Your task to perform on an android device: open app "Duolingo: language lessons" (install if not already installed) and go to login screen Image 0: 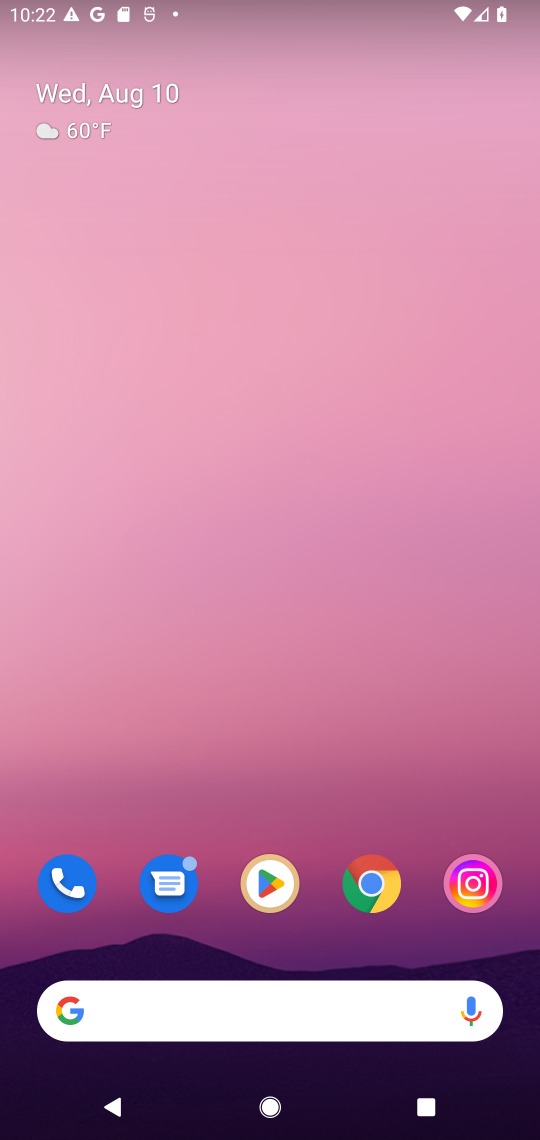
Step 0: press home button
Your task to perform on an android device: open app "Duolingo: language lessons" (install if not already installed) and go to login screen Image 1: 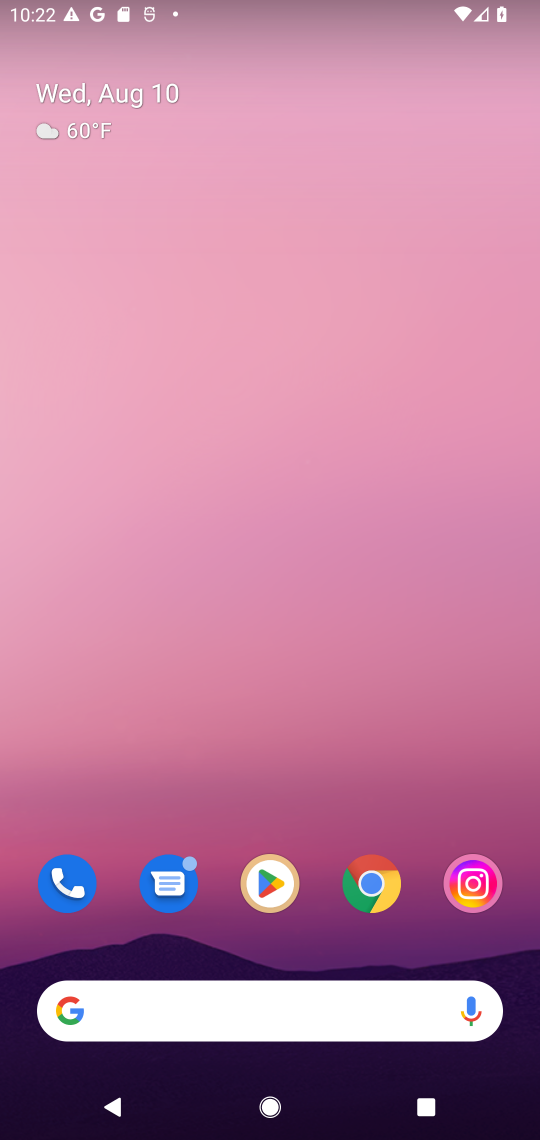
Step 1: drag from (426, 808) to (436, 89)
Your task to perform on an android device: open app "Duolingo: language lessons" (install if not already installed) and go to login screen Image 2: 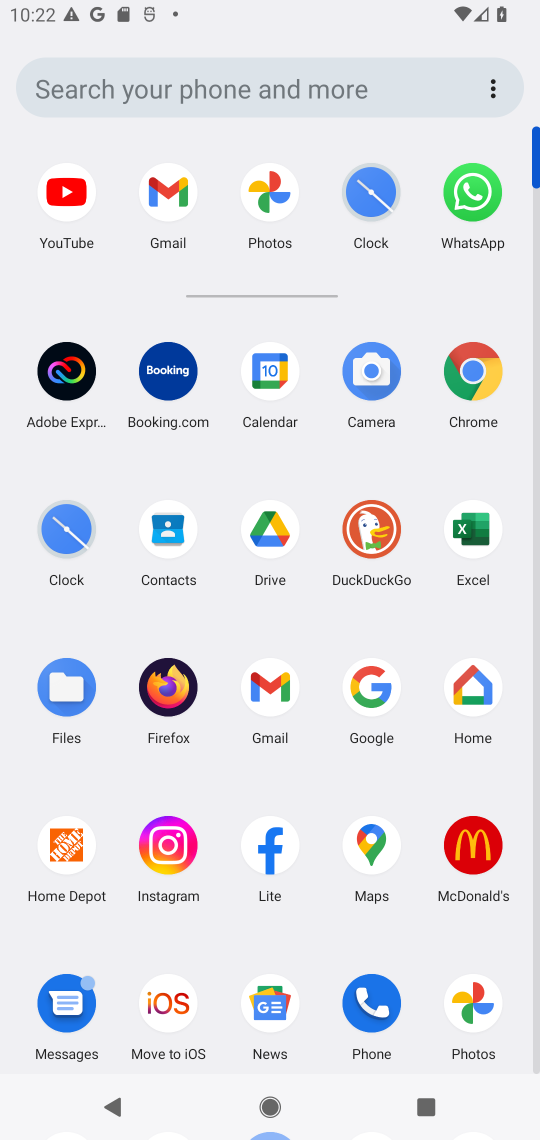
Step 2: drag from (505, 875) to (516, 288)
Your task to perform on an android device: open app "Duolingo: language lessons" (install if not already installed) and go to login screen Image 3: 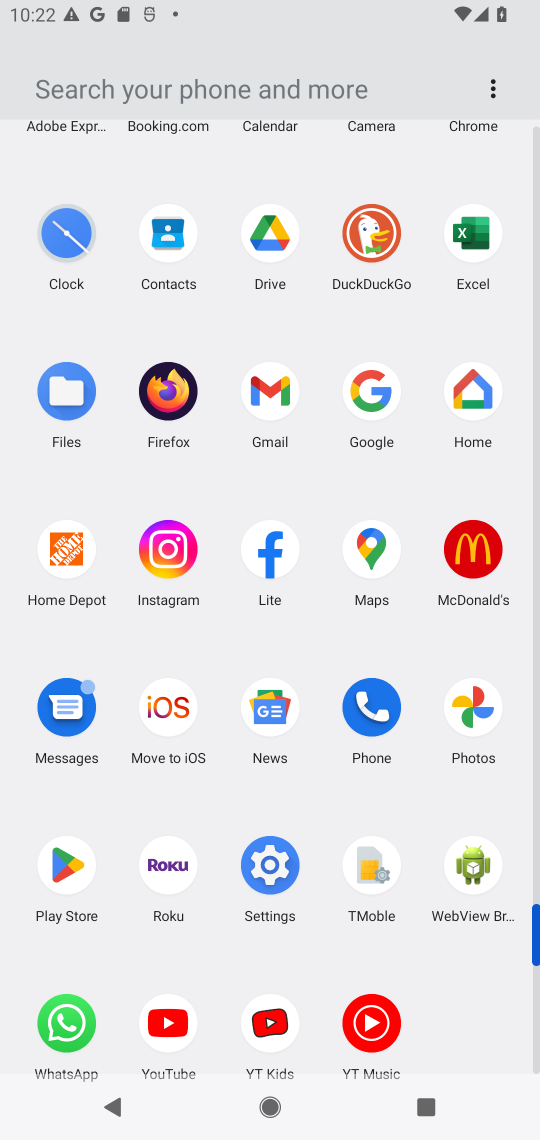
Step 3: click (70, 859)
Your task to perform on an android device: open app "Duolingo: language lessons" (install if not already installed) and go to login screen Image 4: 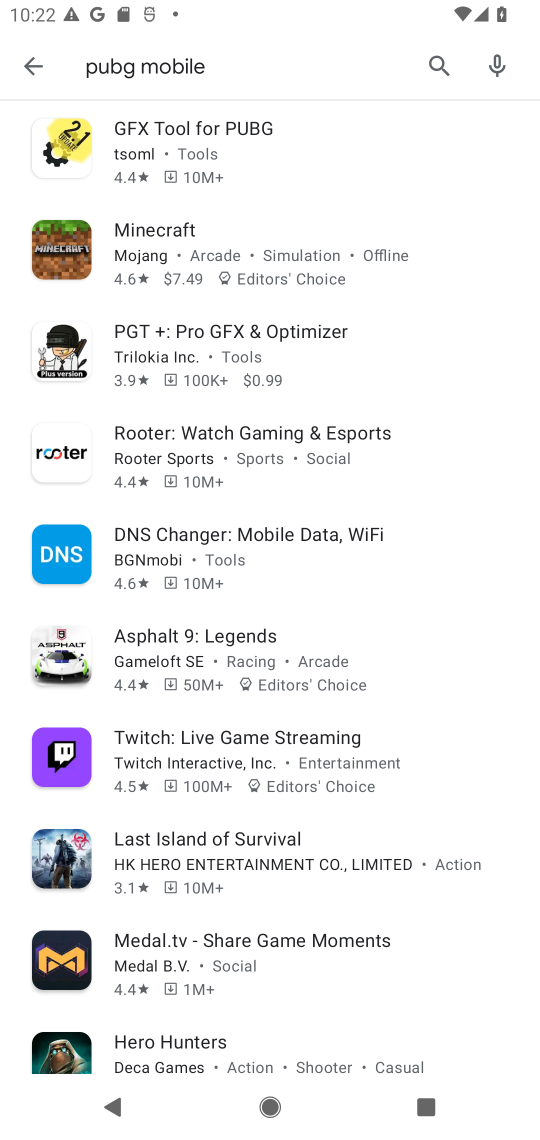
Step 4: click (444, 58)
Your task to perform on an android device: open app "Duolingo: language lessons" (install if not already installed) and go to login screen Image 5: 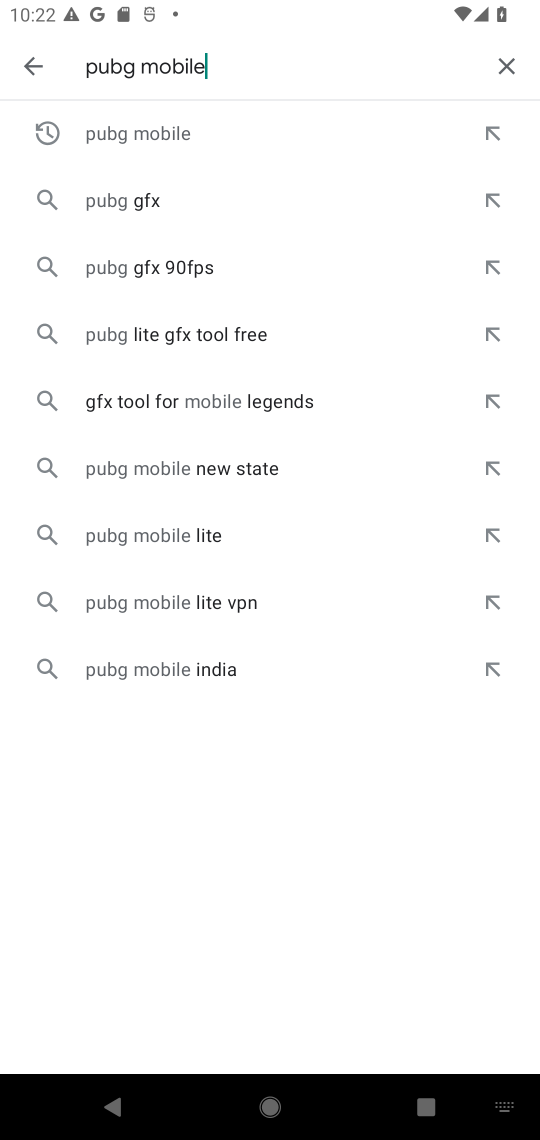
Step 5: click (492, 71)
Your task to perform on an android device: open app "Duolingo: language lessons" (install if not already installed) and go to login screen Image 6: 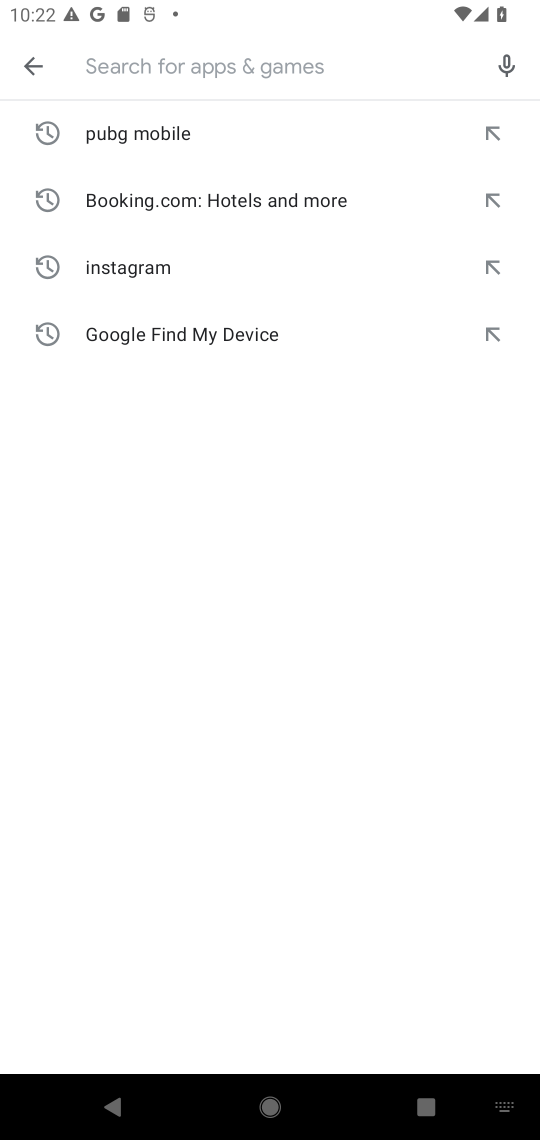
Step 6: type "Duolingo: language lessons"
Your task to perform on an android device: open app "Duolingo: language lessons" (install if not already installed) and go to login screen Image 7: 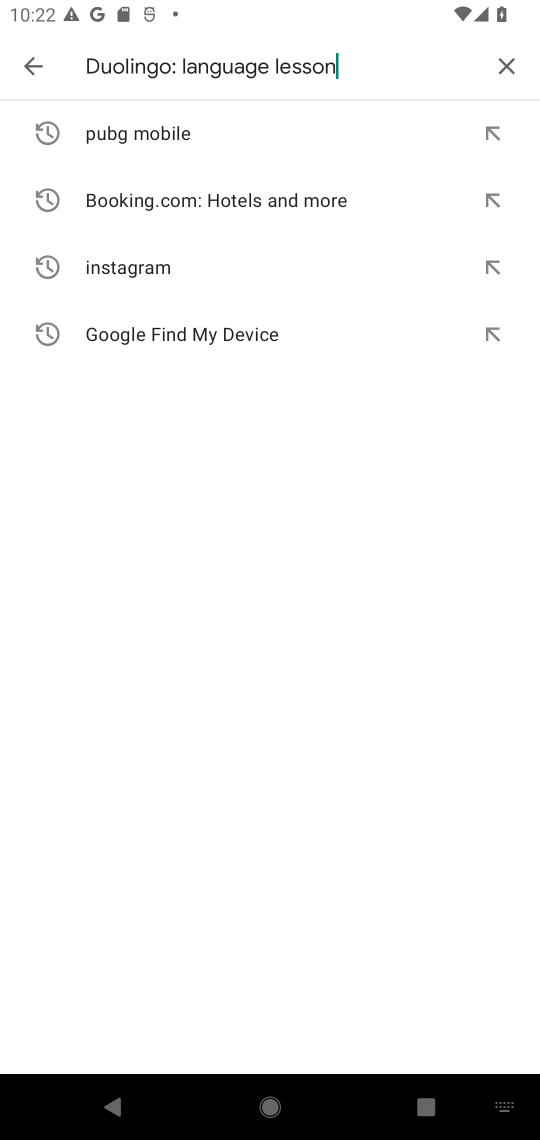
Step 7: press enter
Your task to perform on an android device: open app "Duolingo: language lessons" (install if not already installed) and go to login screen Image 8: 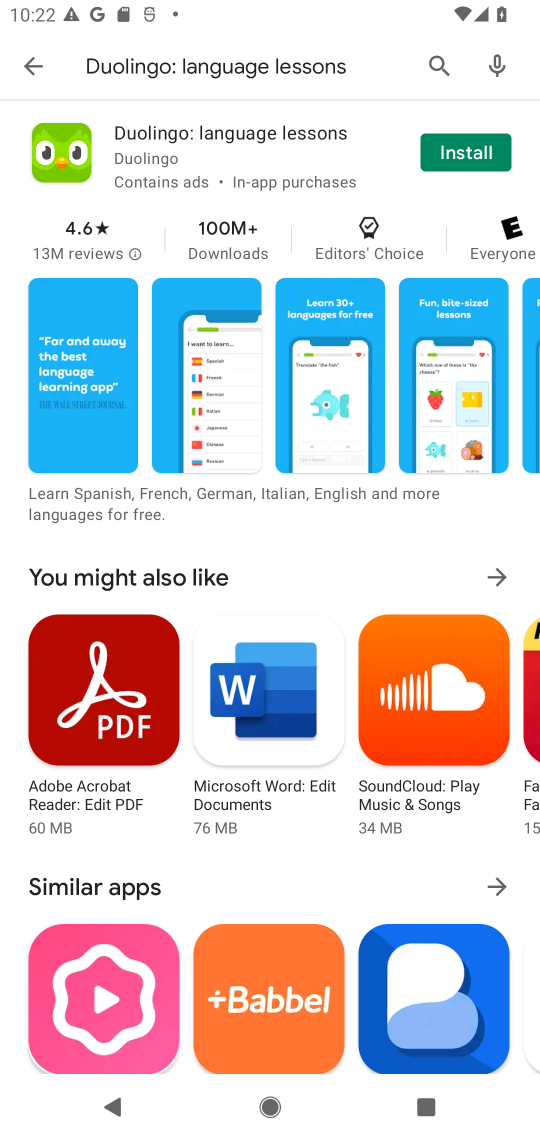
Step 8: click (479, 152)
Your task to perform on an android device: open app "Duolingo: language lessons" (install if not already installed) and go to login screen Image 9: 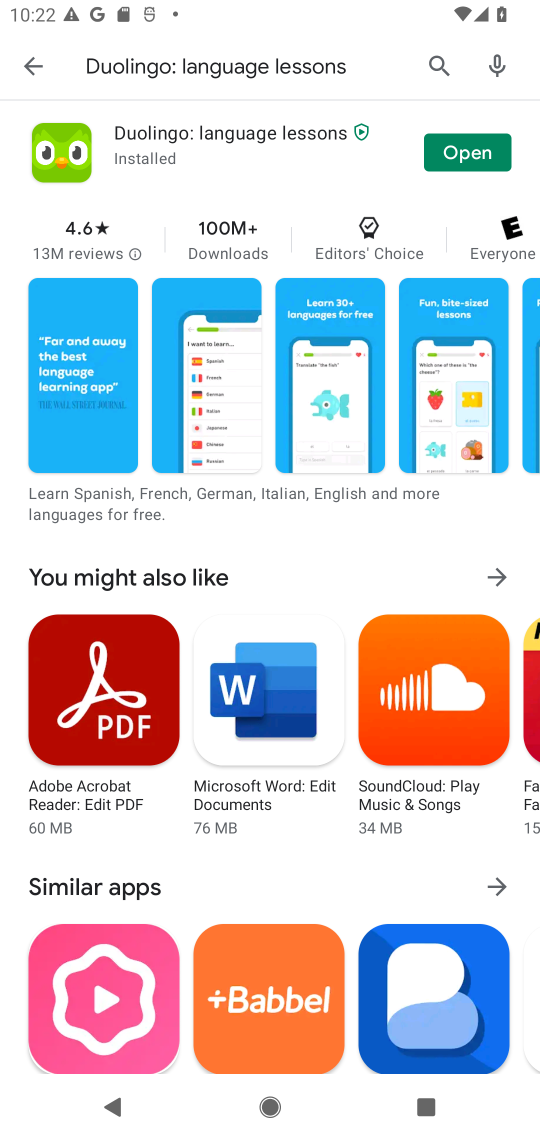
Step 9: click (477, 155)
Your task to perform on an android device: open app "Duolingo: language lessons" (install if not already installed) and go to login screen Image 10: 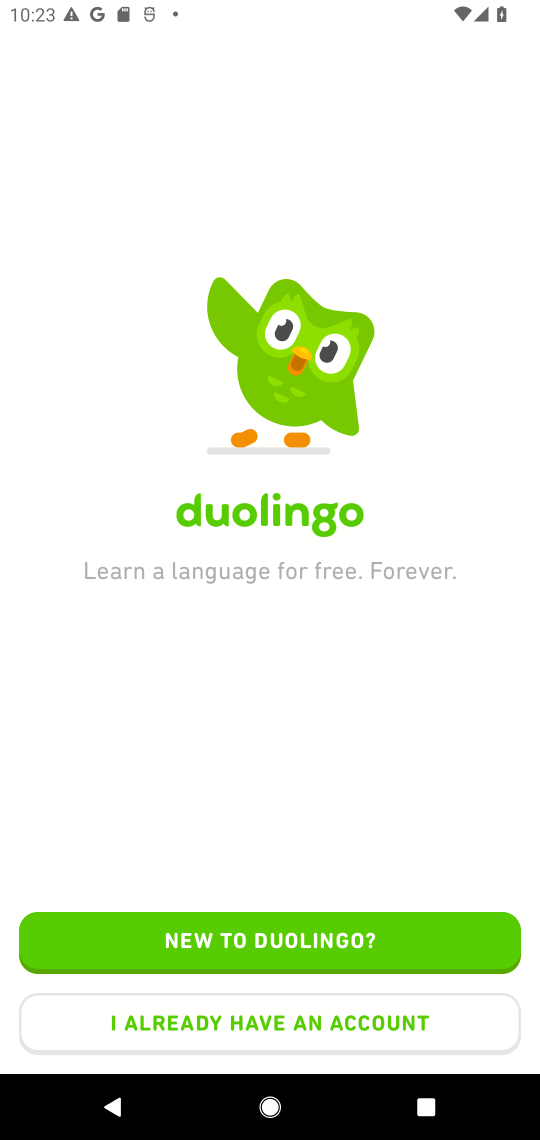
Step 10: task complete